Your task to perform on an android device: Check the news Image 0: 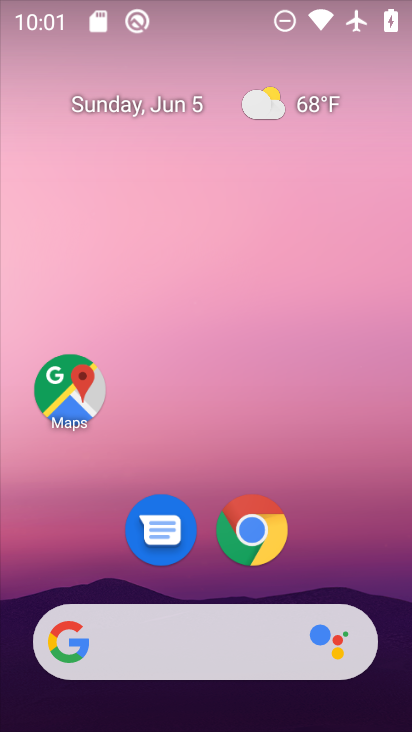
Step 0: drag from (12, 272) to (392, 342)
Your task to perform on an android device: Check the news Image 1: 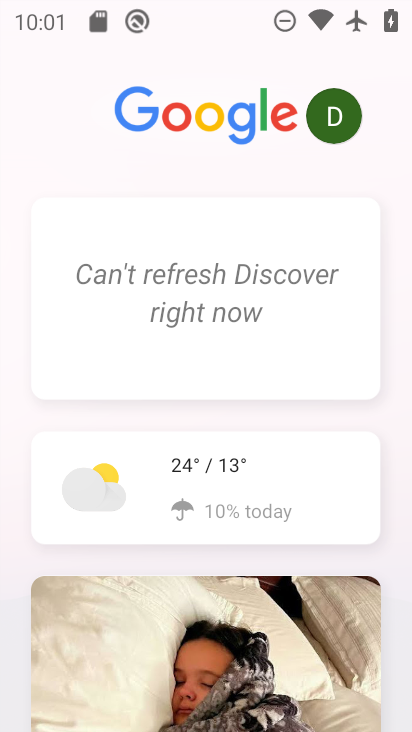
Step 1: drag from (212, 556) to (228, 127)
Your task to perform on an android device: Check the news Image 2: 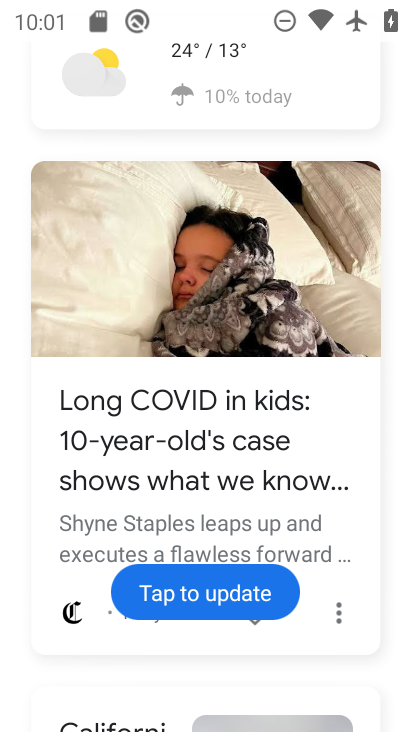
Step 2: click (178, 580)
Your task to perform on an android device: Check the news Image 3: 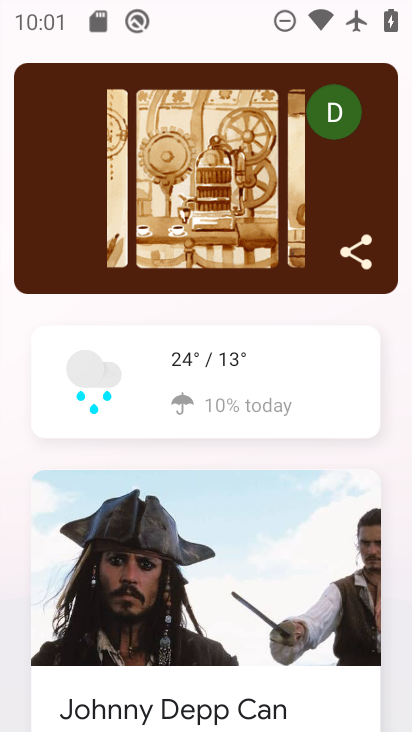
Step 3: task complete